Your task to perform on an android device: turn on priority inbox in the gmail app Image 0: 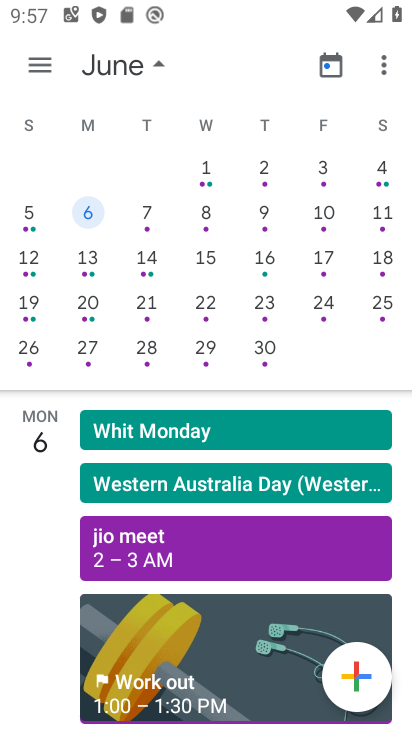
Step 0: press home button
Your task to perform on an android device: turn on priority inbox in the gmail app Image 1: 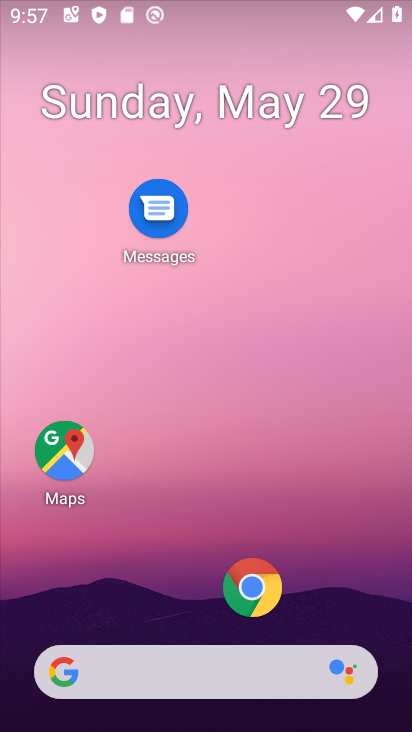
Step 1: drag from (191, 547) to (252, 145)
Your task to perform on an android device: turn on priority inbox in the gmail app Image 2: 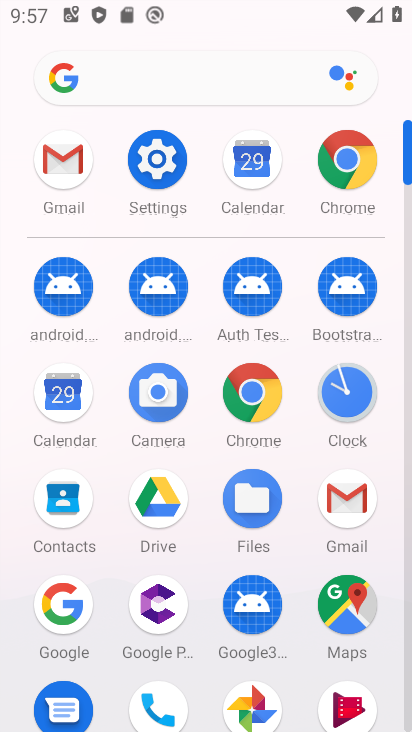
Step 2: click (43, 159)
Your task to perform on an android device: turn on priority inbox in the gmail app Image 3: 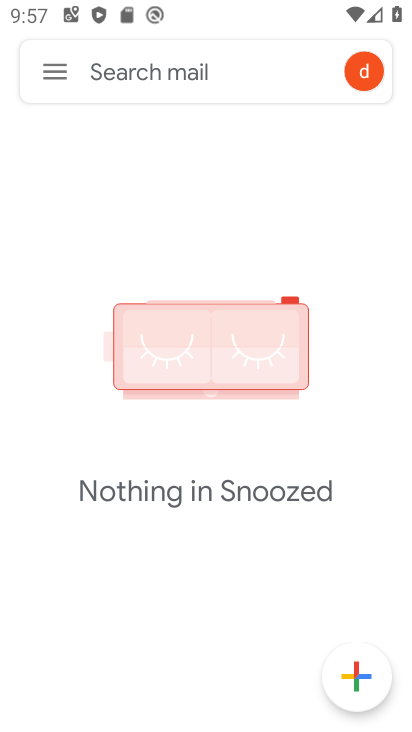
Step 3: click (40, 68)
Your task to perform on an android device: turn on priority inbox in the gmail app Image 4: 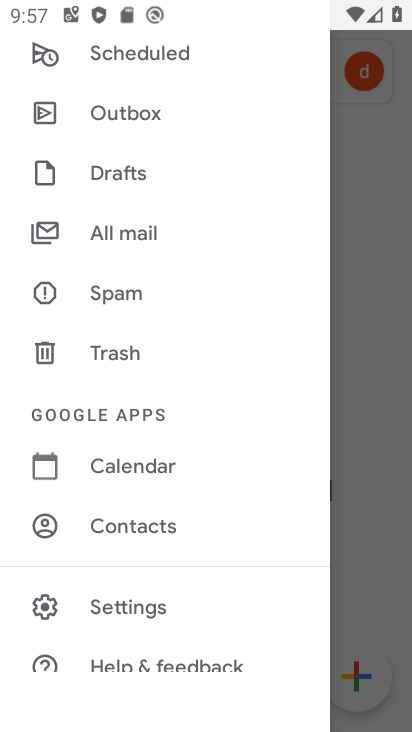
Step 4: click (141, 599)
Your task to perform on an android device: turn on priority inbox in the gmail app Image 5: 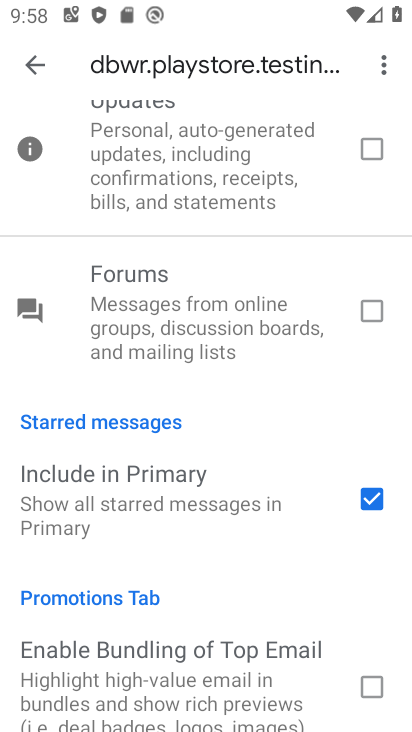
Step 5: click (26, 58)
Your task to perform on an android device: turn on priority inbox in the gmail app Image 6: 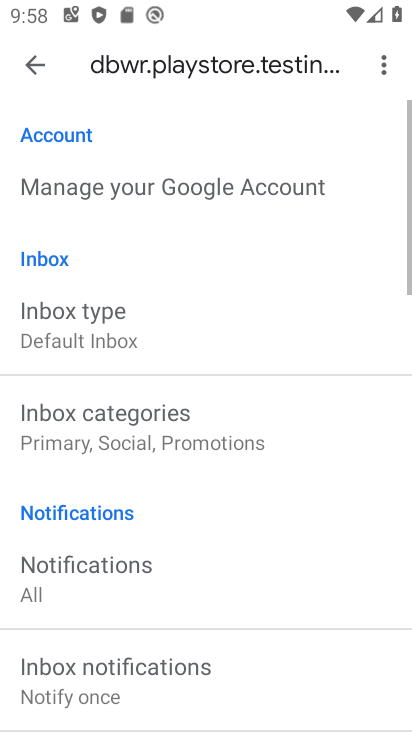
Step 6: click (83, 316)
Your task to perform on an android device: turn on priority inbox in the gmail app Image 7: 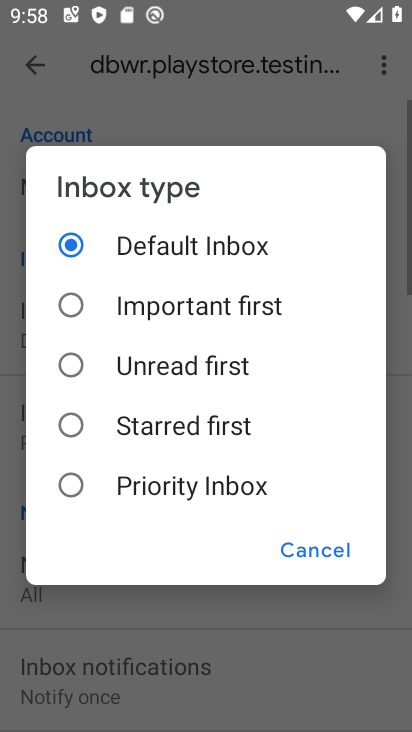
Step 7: click (73, 488)
Your task to perform on an android device: turn on priority inbox in the gmail app Image 8: 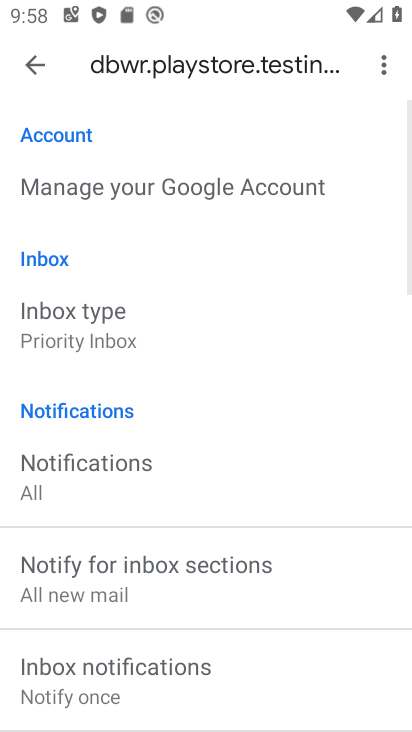
Step 8: task complete